Your task to perform on an android device: Show me productivity apps on the Play Store Image 0: 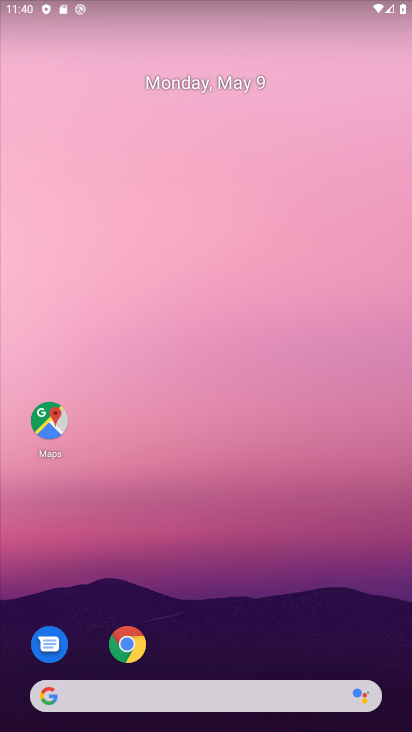
Step 0: drag from (278, 635) to (321, 35)
Your task to perform on an android device: Show me productivity apps on the Play Store Image 1: 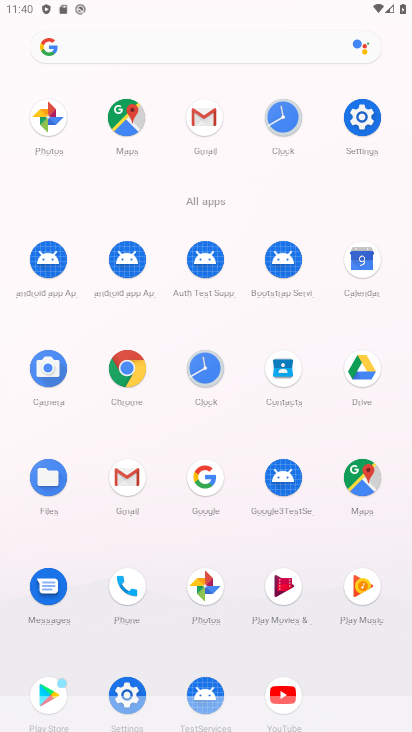
Step 1: click (49, 687)
Your task to perform on an android device: Show me productivity apps on the Play Store Image 2: 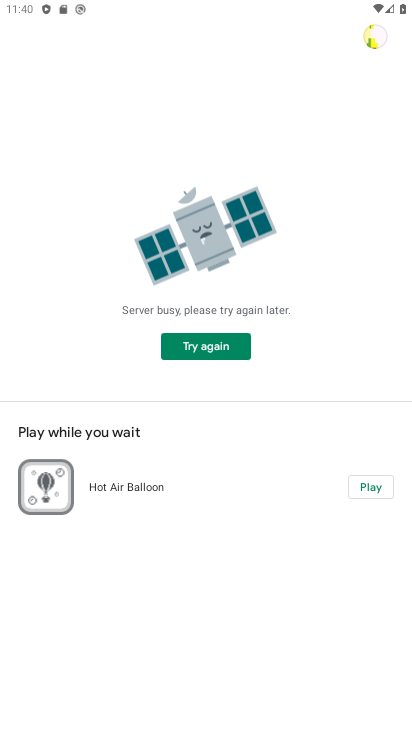
Step 2: click (198, 351)
Your task to perform on an android device: Show me productivity apps on the Play Store Image 3: 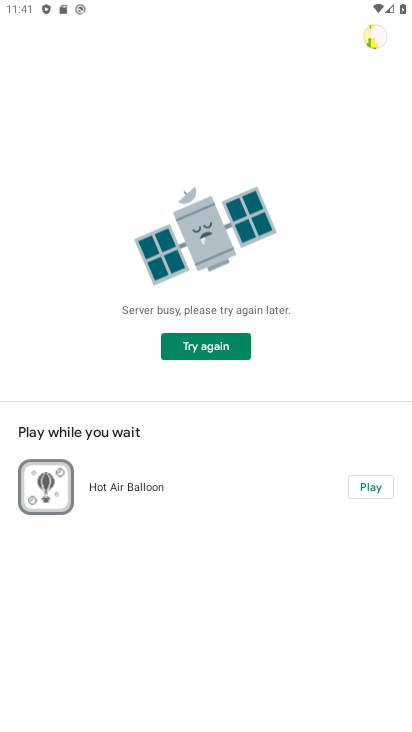
Step 3: task complete